Your task to perform on an android device: Turn off the flashlight Image 0: 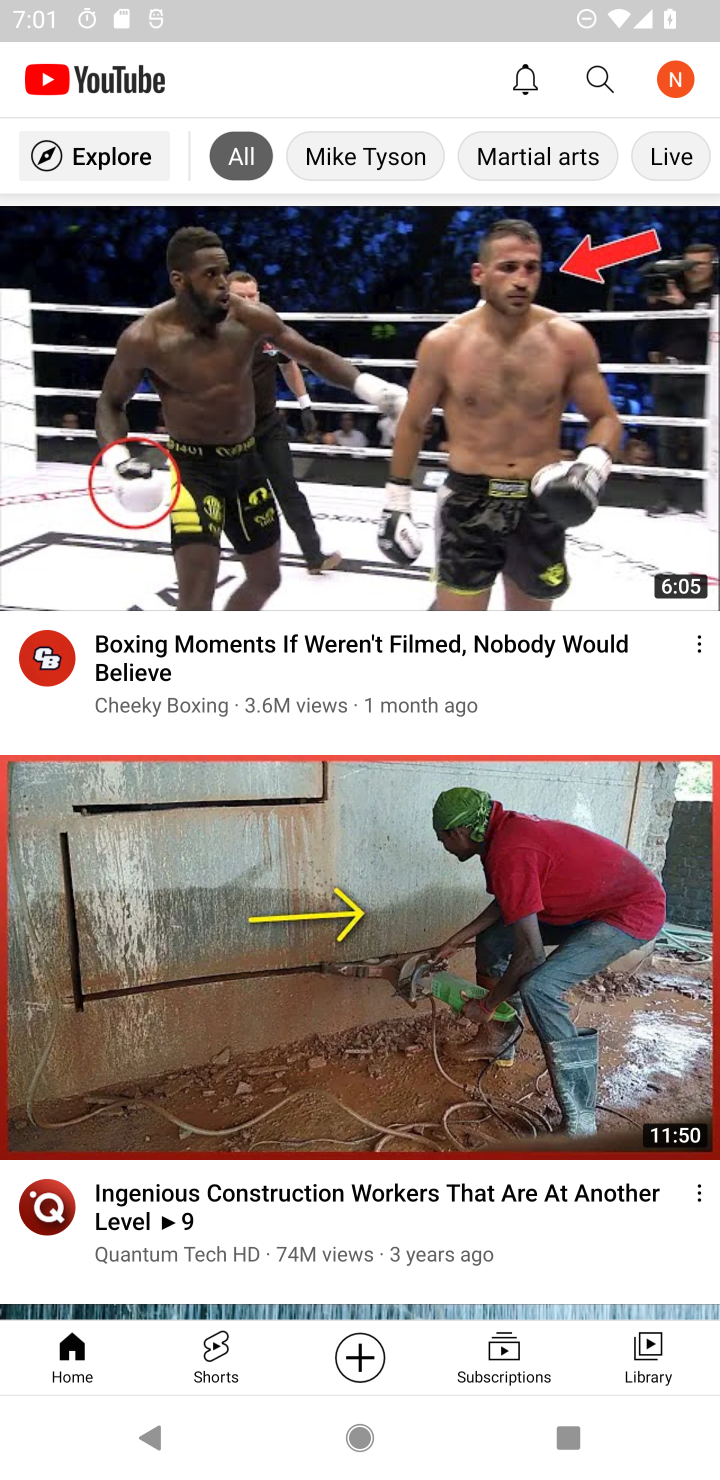
Step 0: click (601, 126)
Your task to perform on an android device: Turn off the flashlight Image 1: 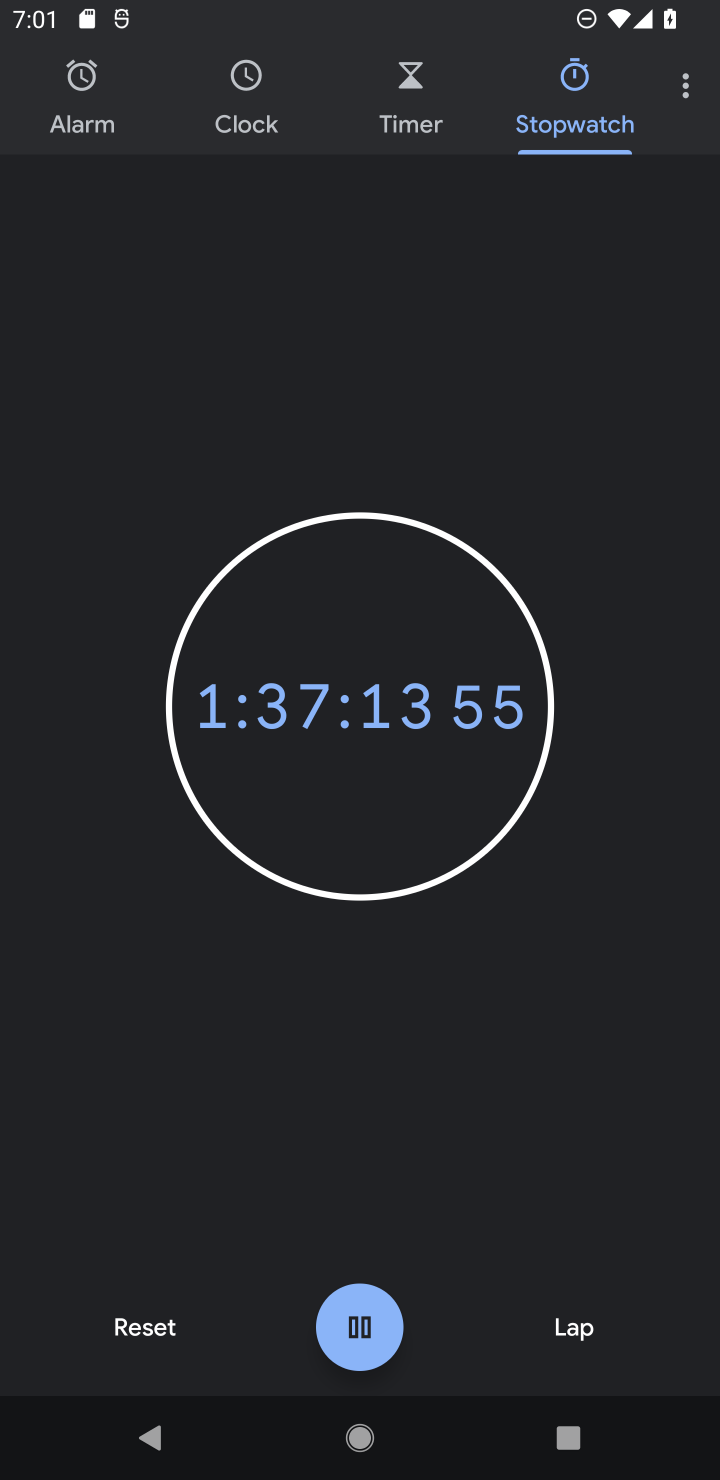
Step 1: drag from (331, 982) to (410, 250)
Your task to perform on an android device: Turn off the flashlight Image 2: 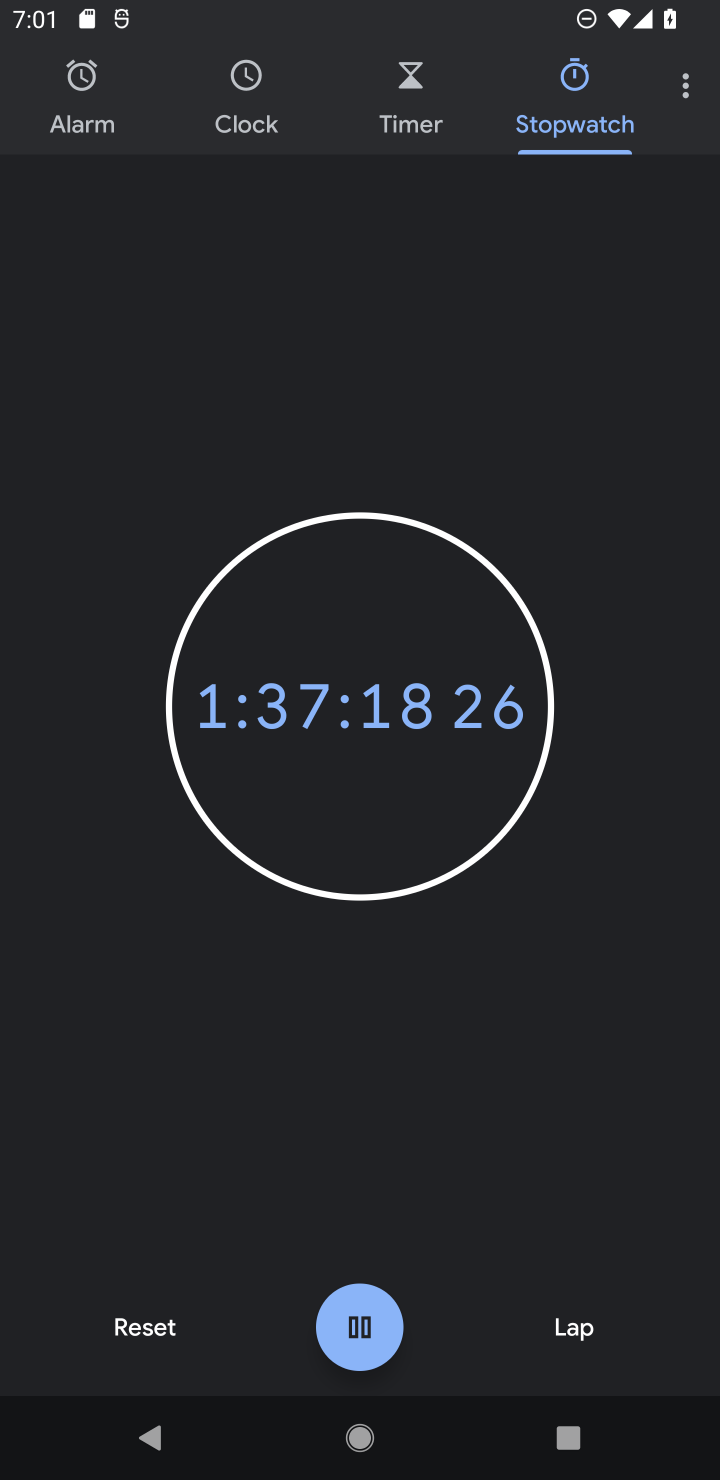
Step 2: press home button
Your task to perform on an android device: Turn off the flashlight Image 3: 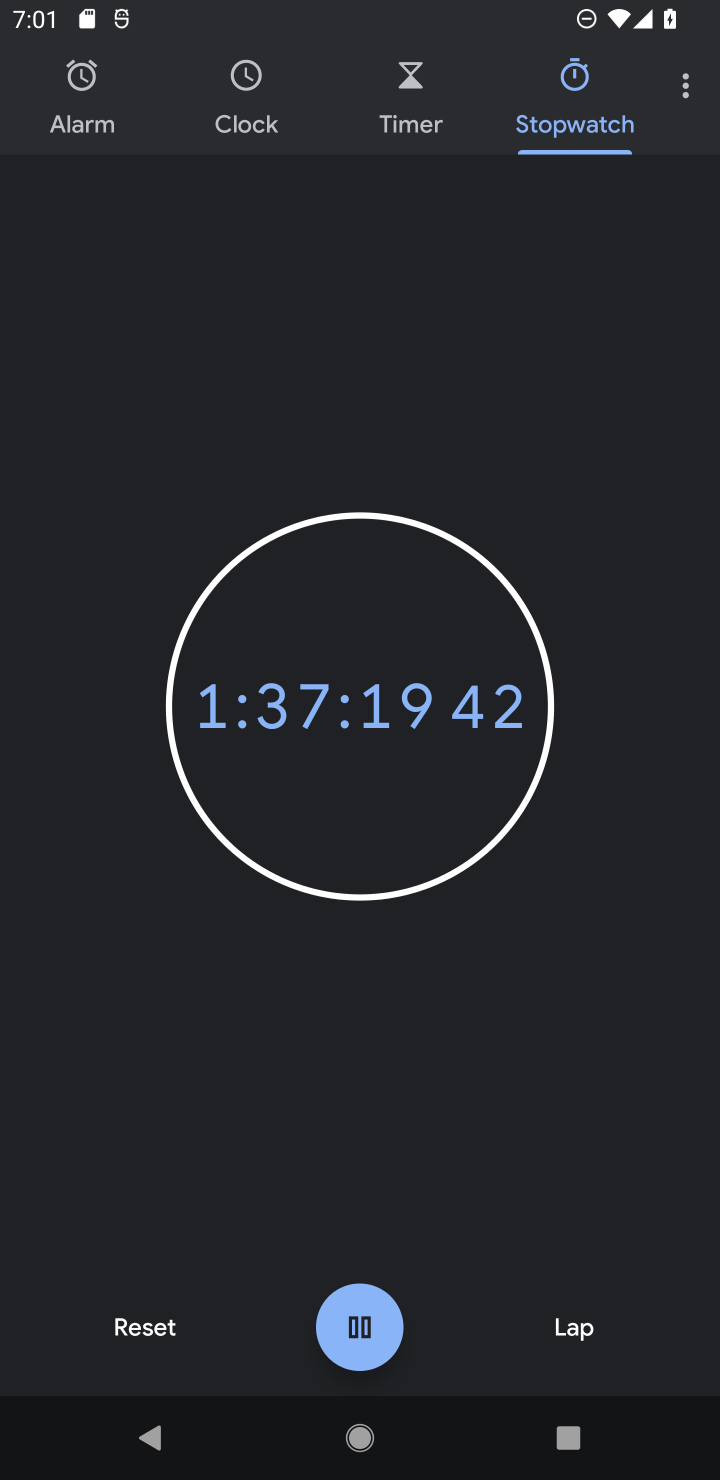
Step 3: drag from (375, 1127) to (546, 147)
Your task to perform on an android device: Turn off the flashlight Image 4: 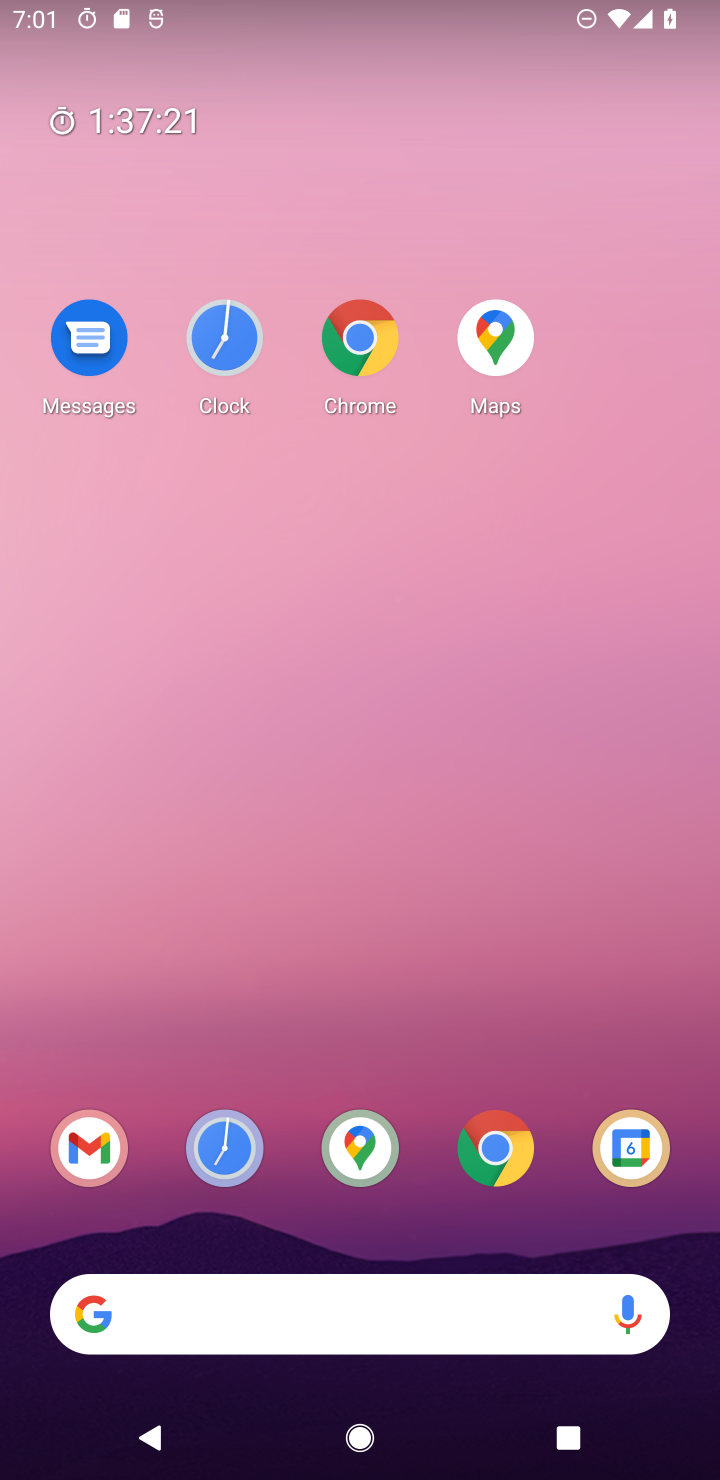
Step 4: drag from (406, 1221) to (421, 196)
Your task to perform on an android device: Turn off the flashlight Image 5: 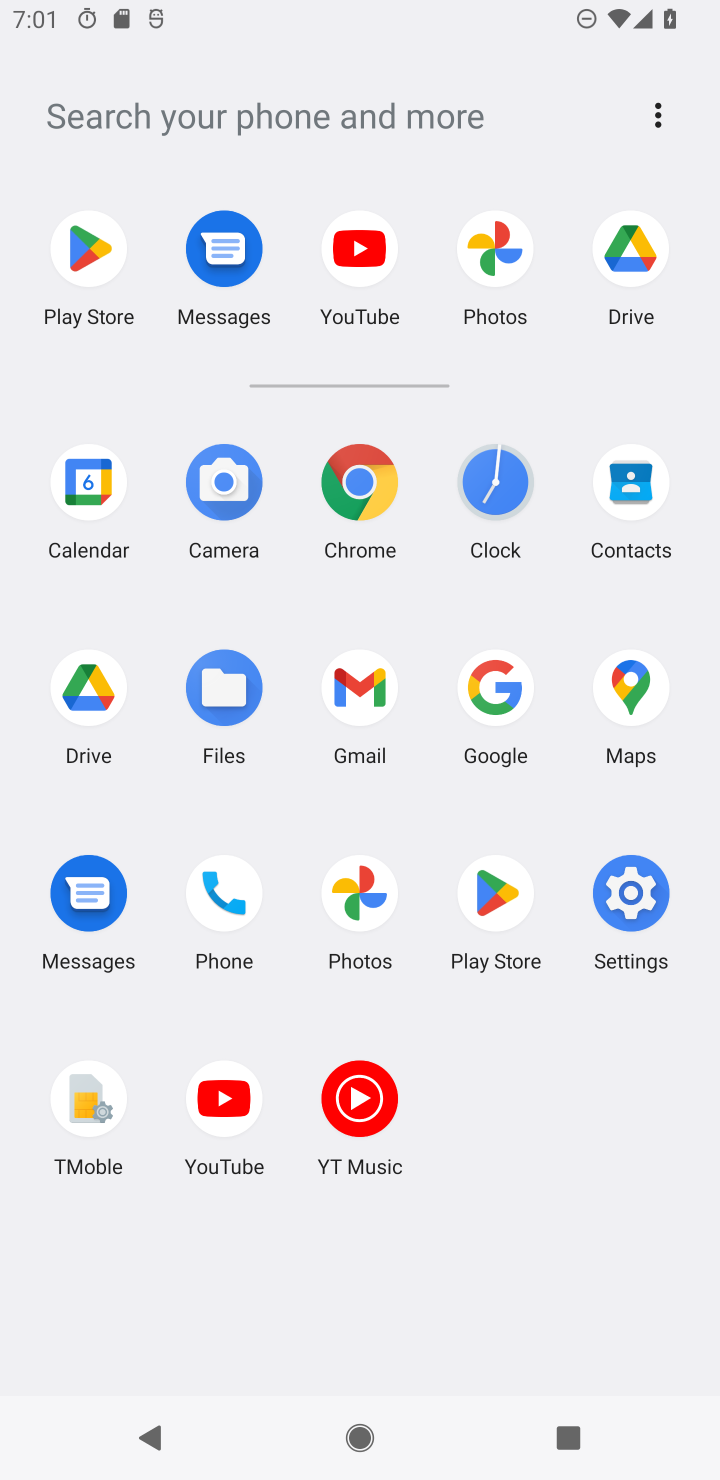
Step 5: click (613, 877)
Your task to perform on an android device: Turn off the flashlight Image 6: 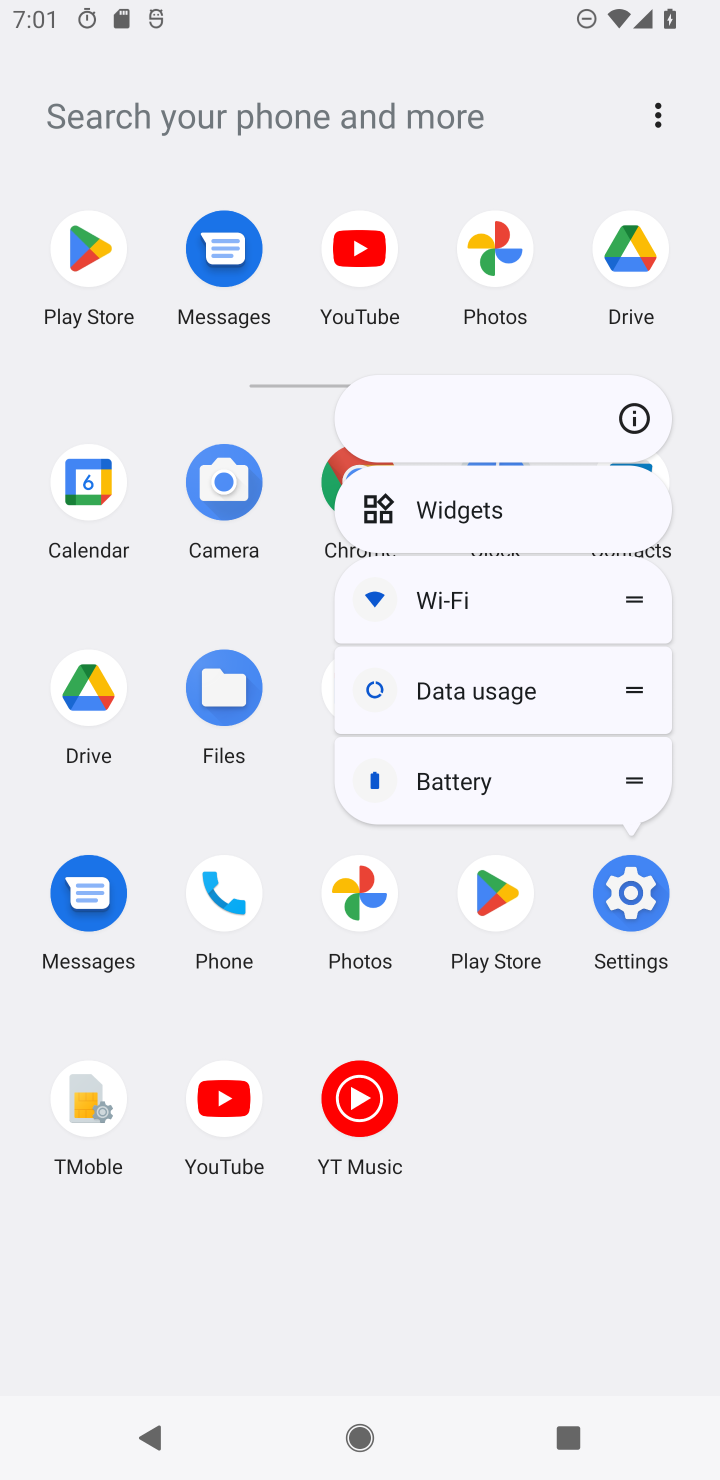
Step 6: click (623, 411)
Your task to perform on an android device: Turn off the flashlight Image 7: 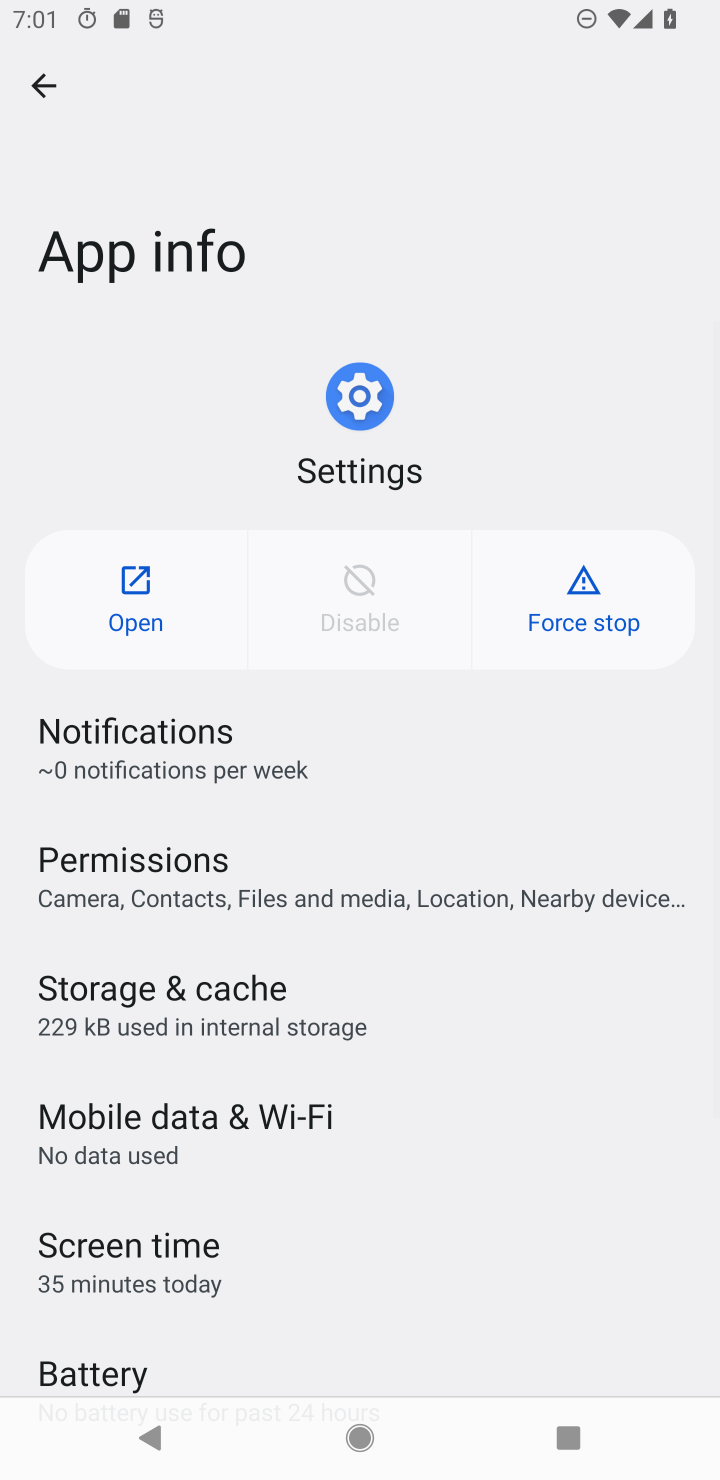
Step 7: click (146, 547)
Your task to perform on an android device: Turn off the flashlight Image 8: 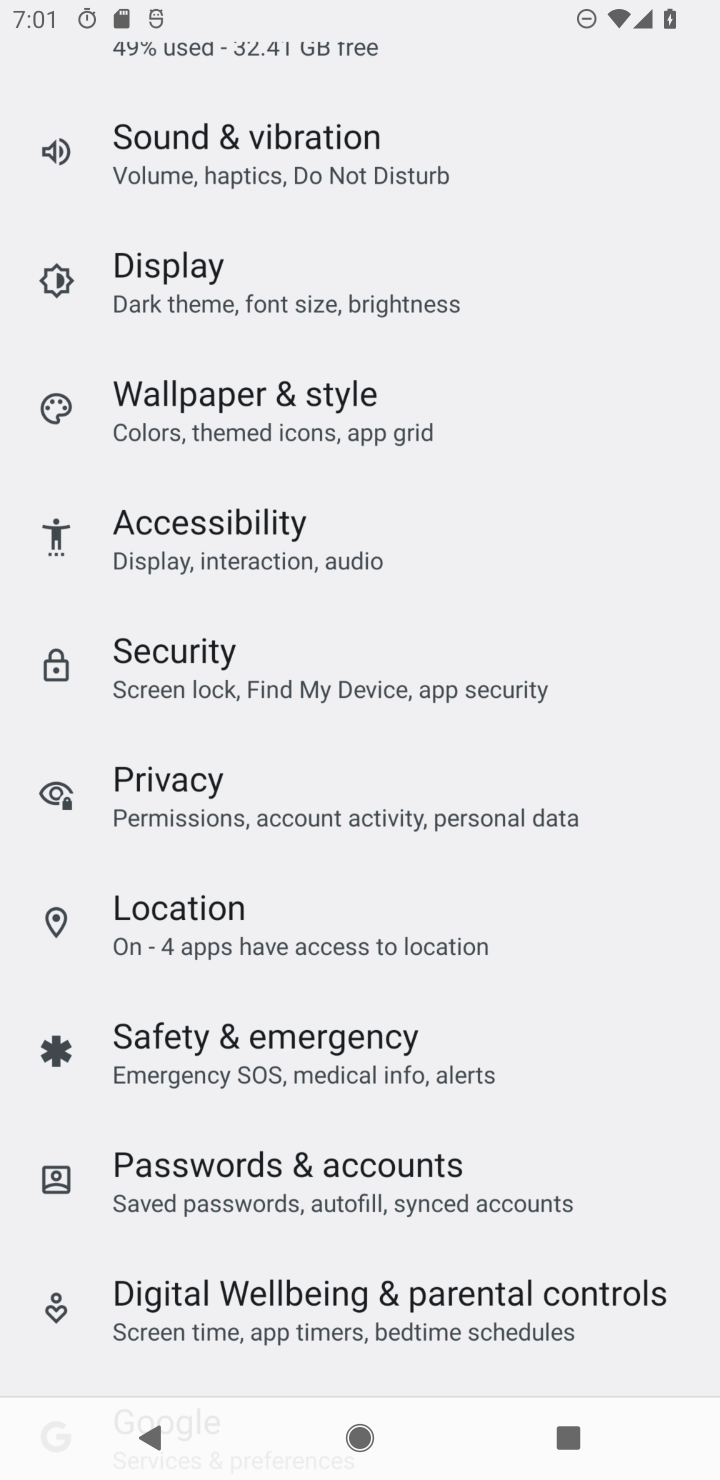
Step 8: drag from (314, 349) to (343, 1477)
Your task to perform on an android device: Turn off the flashlight Image 9: 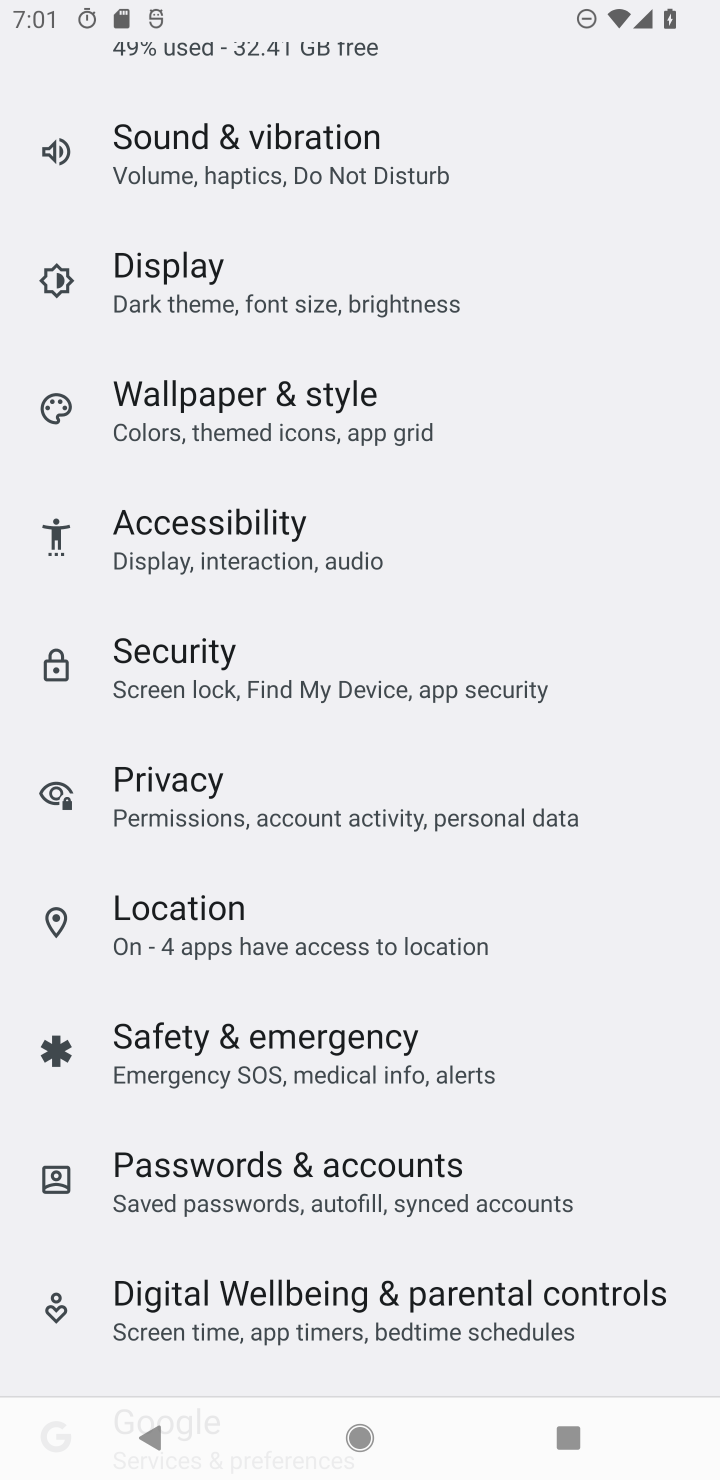
Step 9: drag from (403, 351) to (622, 1395)
Your task to perform on an android device: Turn off the flashlight Image 10: 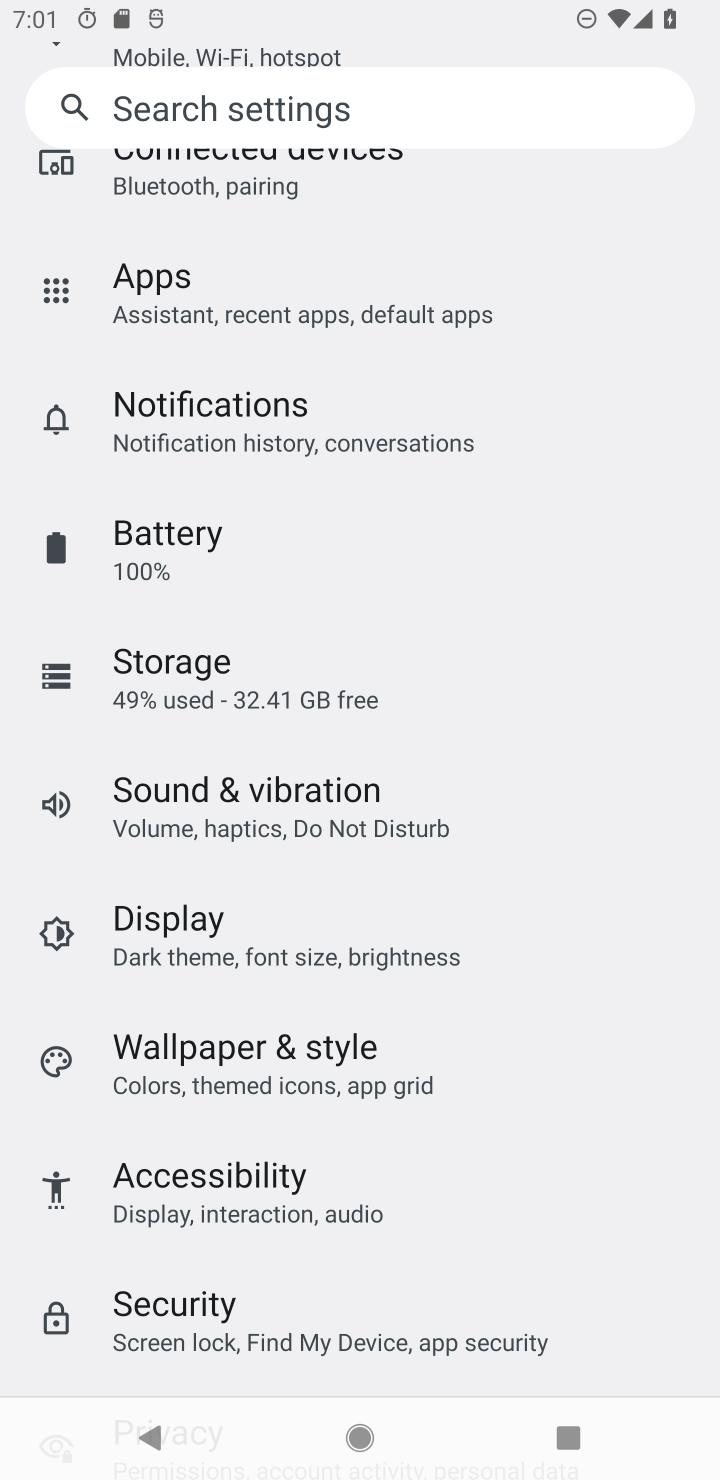
Step 10: click (222, 119)
Your task to perform on an android device: Turn off the flashlight Image 11: 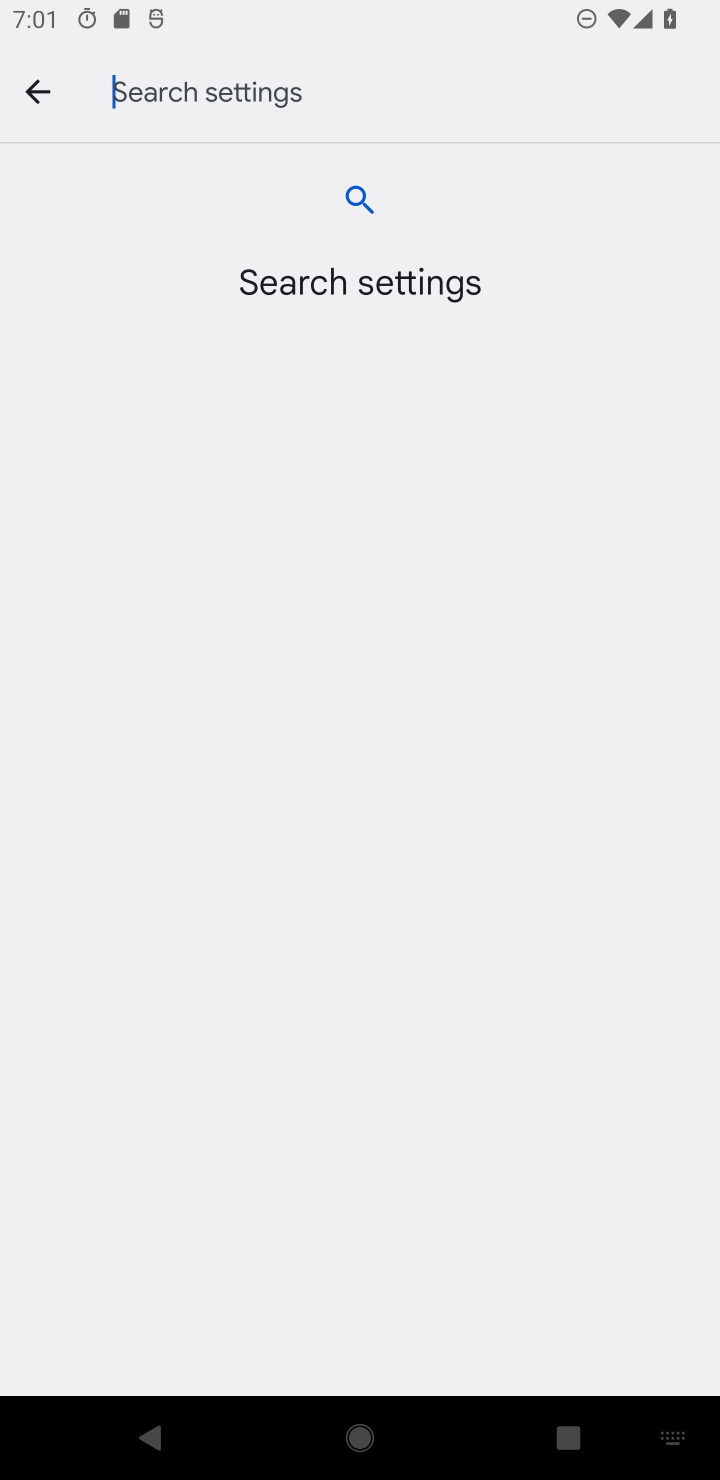
Step 11: type "flashlight"
Your task to perform on an android device: Turn off the flashlight Image 12: 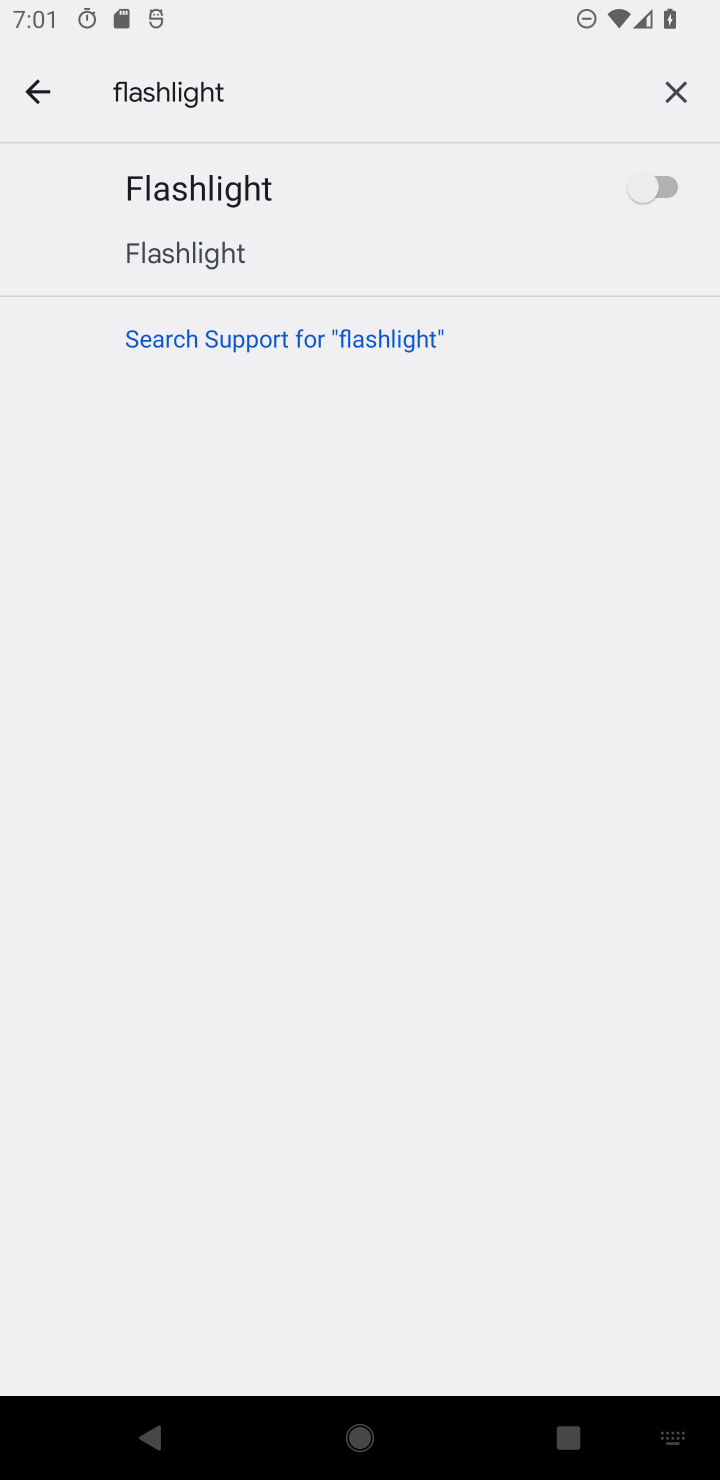
Step 12: task complete